Your task to perform on an android device: turn on notifications settings in the gmail app Image 0: 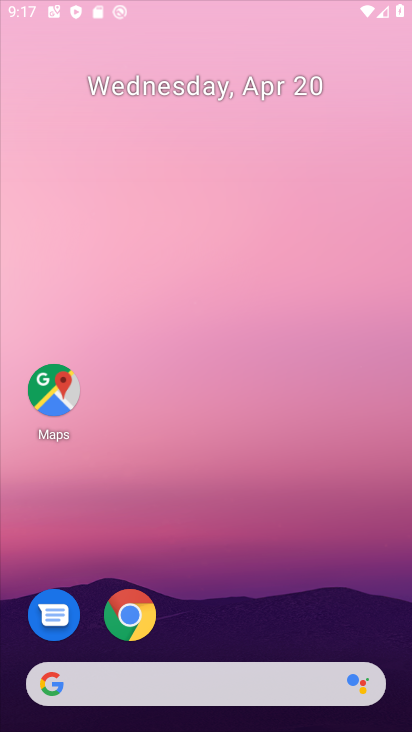
Step 0: press home button
Your task to perform on an android device: turn on notifications settings in the gmail app Image 1: 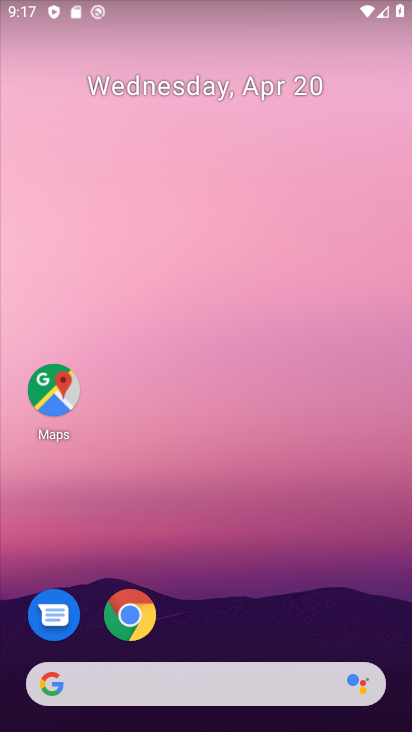
Step 1: drag from (243, 584) to (220, 86)
Your task to perform on an android device: turn on notifications settings in the gmail app Image 2: 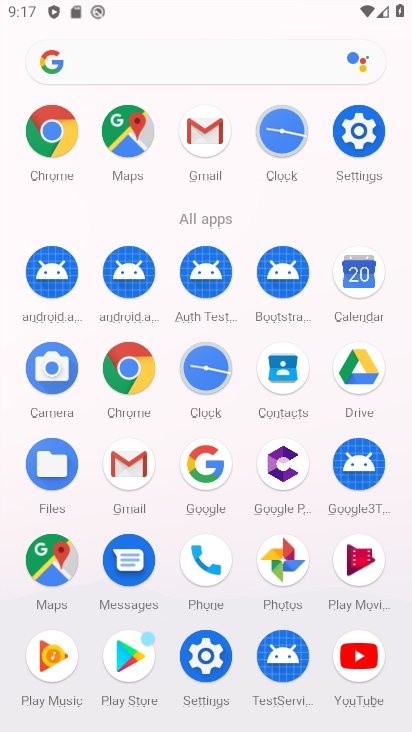
Step 2: click (203, 132)
Your task to perform on an android device: turn on notifications settings in the gmail app Image 3: 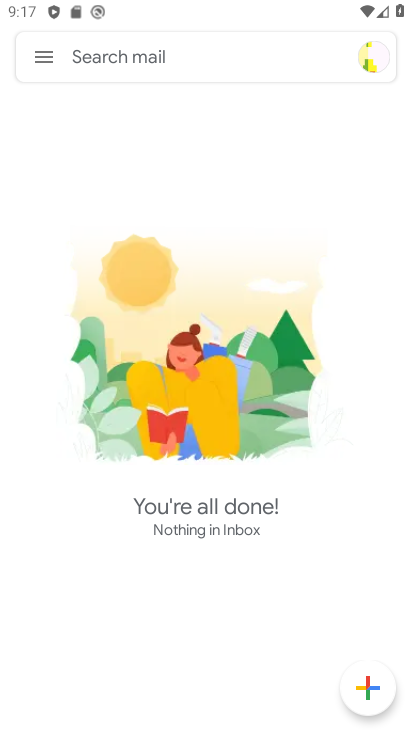
Step 3: click (37, 61)
Your task to perform on an android device: turn on notifications settings in the gmail app Image 4: 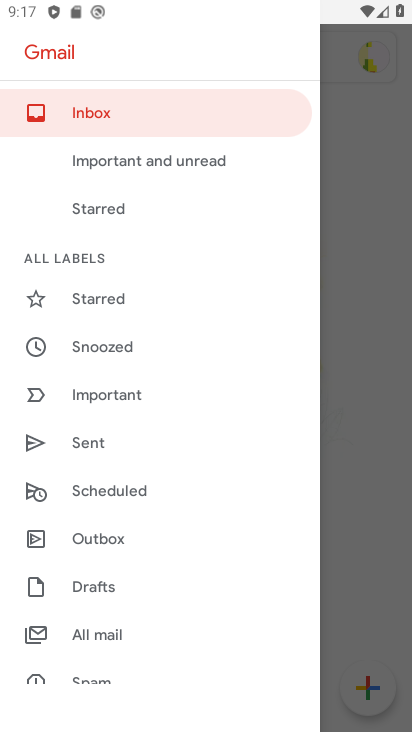
Step 4: drag from (108, 619) to (173, 300)
Your task to perform on an android device: turn on notifications settings in the gmail app Image 5: 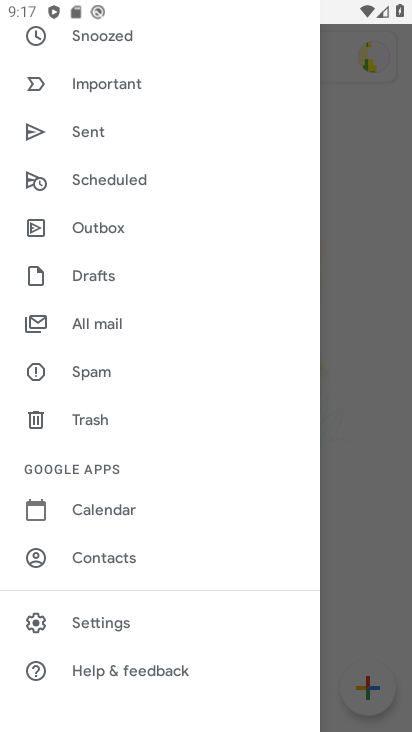
Step 5: click (113, 620)
Your task to perform on an android device: turn on notifications settings in the gmail app Image 6: 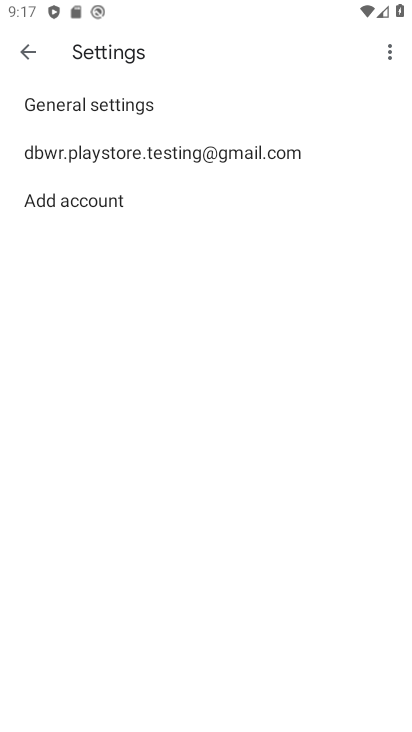
Step 6: click (101, 99)
Your task to perform on an android device: turn on notifications settings in the gmail app Image 7: 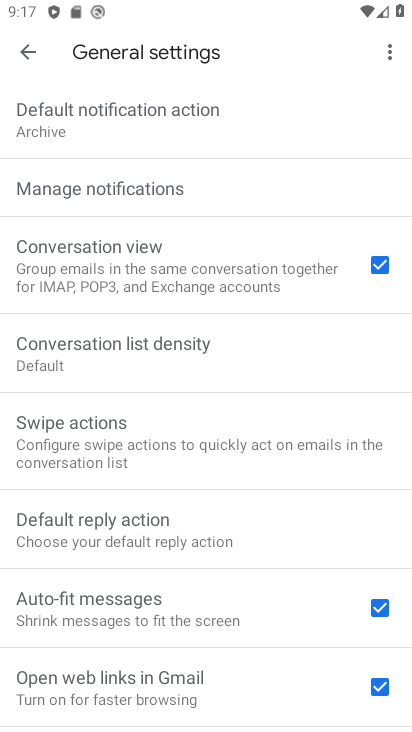
Step 7: click (87, 186)
Your task to perform on an android device: turn on notifications settings in the gmail app Image 8: 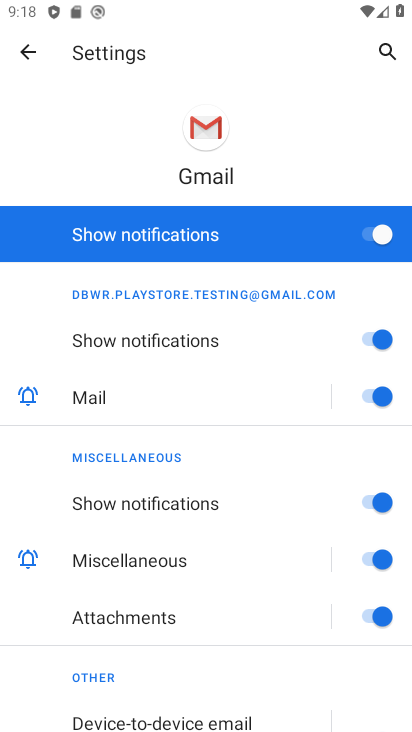
Step 8: task complete